Your task to perform on an android device: Search for sushi restaurants on Maps Image 0: 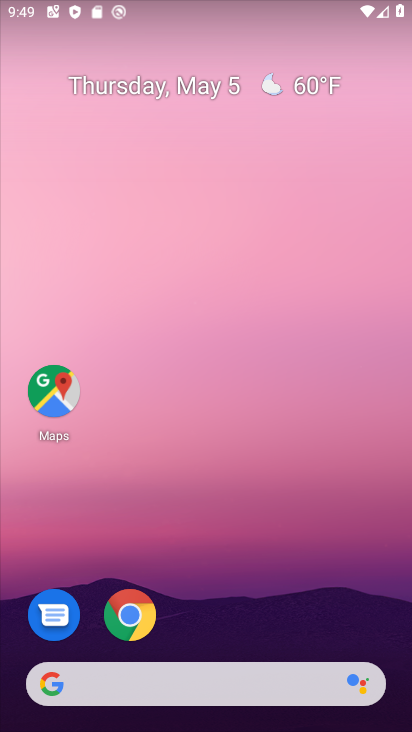
Step 0: click (52, 393)
Your task to perform on an android device: Search for sushi restaurants on Maps Image 1: 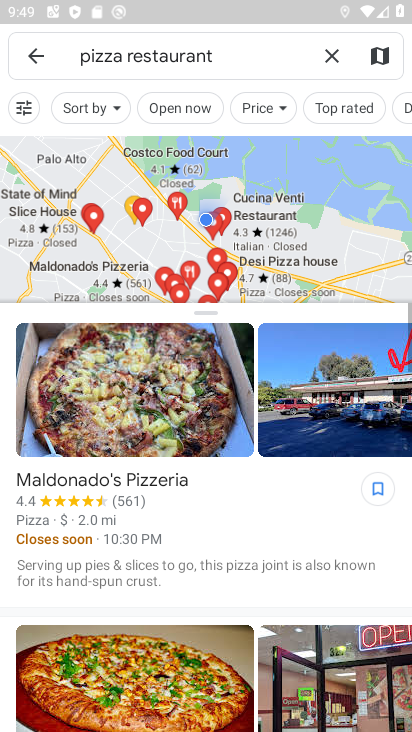
Step 1: click (325, 54)
Your task to perform on an android device: Search for sushi restaurants on Maps Image 2: 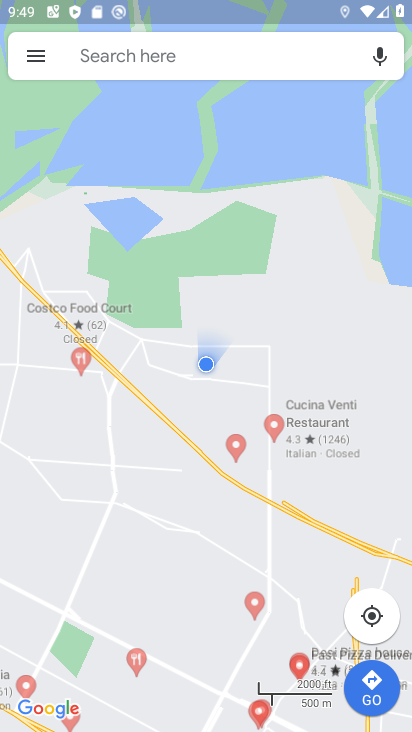
Step 2: click (199, 58)
Your task to perform on an android device: Search for sushi restaurants on Maps Image 3: 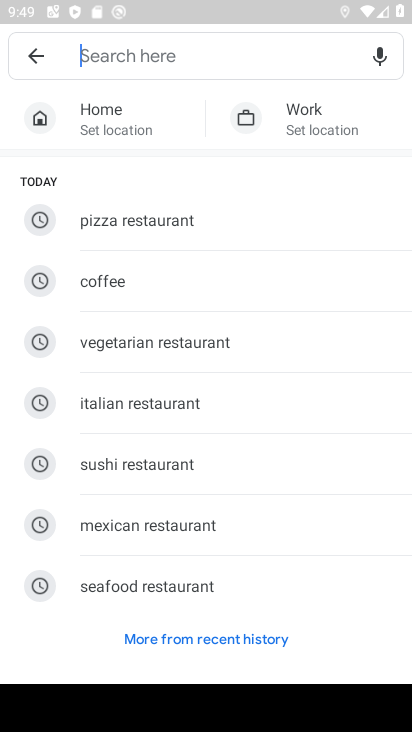
Step 3: click (157, 471)
Your task to perform on an android device: Search for sushi restaurants on Maps Image 4: 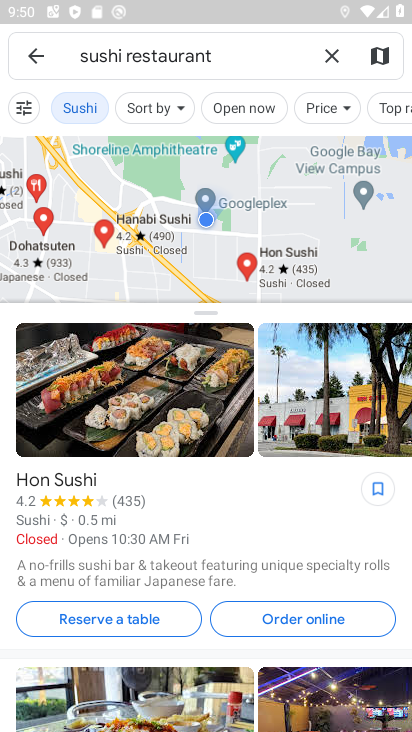
Step 4: task complete